Your task to perform on an android device: Clear the cart on ebay. Search for "lg ultragear" on ebay, select the first entry, and add it to the cart. Image 0: 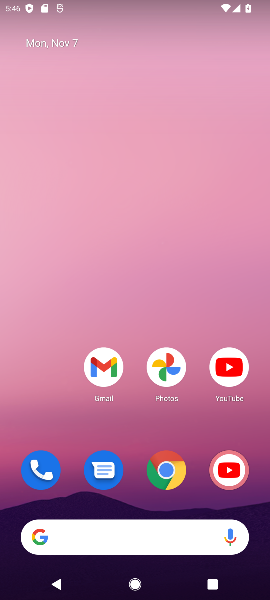
Step 0: click (151, 460)
Your task to perform on an android device: Clear the cart on ebay. Search for "lg ultragear" on ebay, select the first entry, and add it to the cart. Image 1: 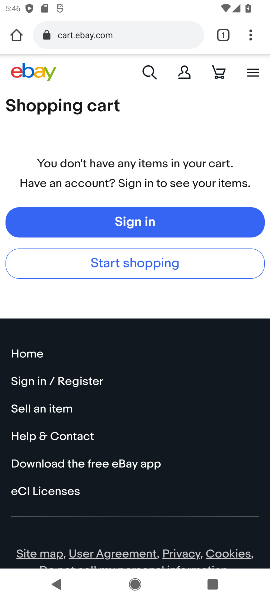
Step 1: click (220, 70)
Your task to perform on an android device: Clear the cart on ebay. Search for "lg ultragear" on ebay, select the first entry, and add it to the cart. Image 2: 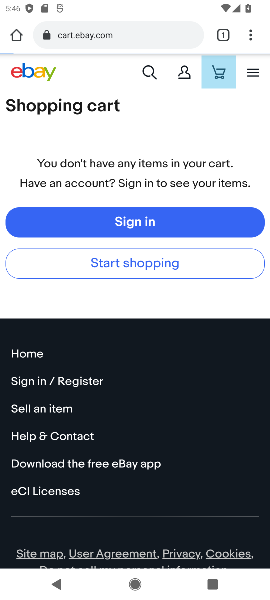
Step 2: task complete